Your task to perform on an android device: change the upload size in google photos Image 0: 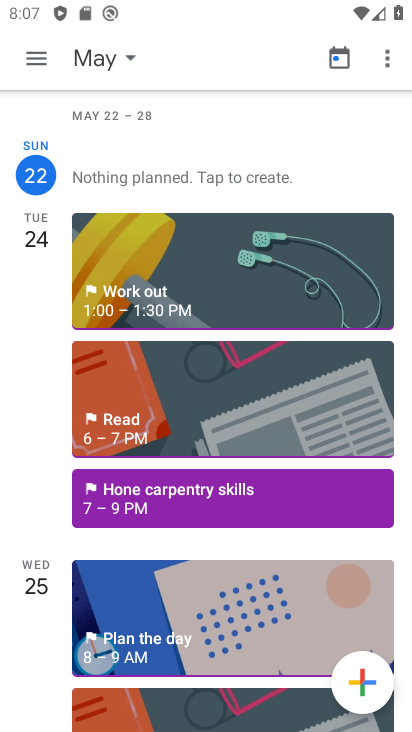
Step 0: press home button
Your task to perform on an android device: change the upload size in google photos Image 1: 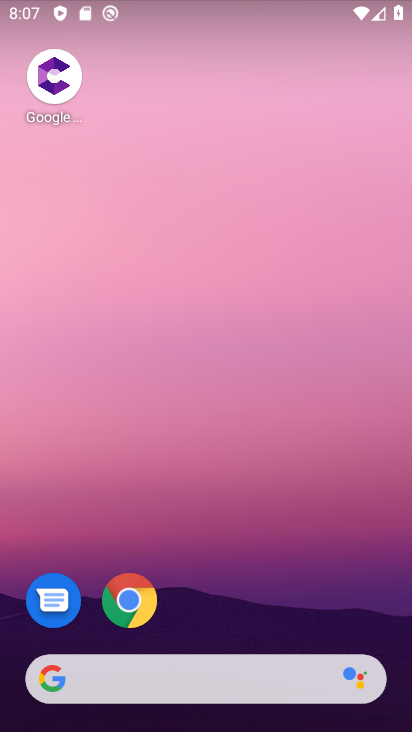
Step 1: drag from (259, 619) to (355, 198)
Your task to perform on an android device: change the upload size in google photos Image 2: 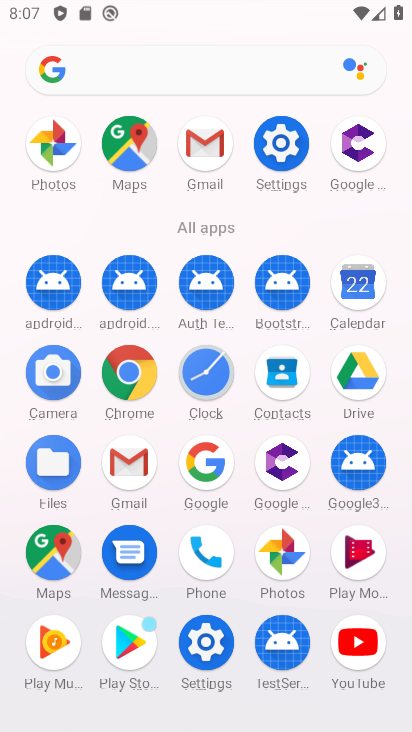
Step 2: click (300, 158)
Your task to perform on an android device: change the upload size in google photos Image 3: 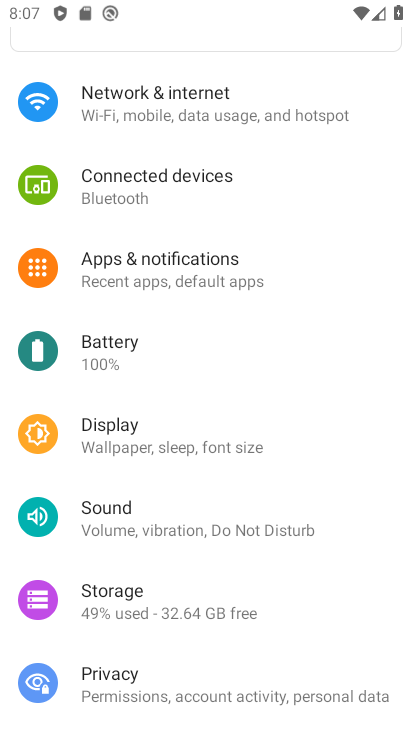
Step 3: press home button
Your task to perform on an android device: change the upload size in google photos Image 4: 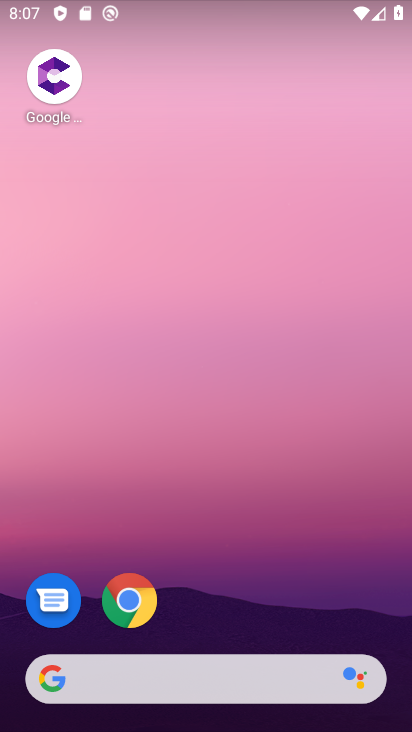
Step 4: drag from (209, 632) to (363, 48)
Your task to perform on an android device: change the upload size in google photos Image 5: 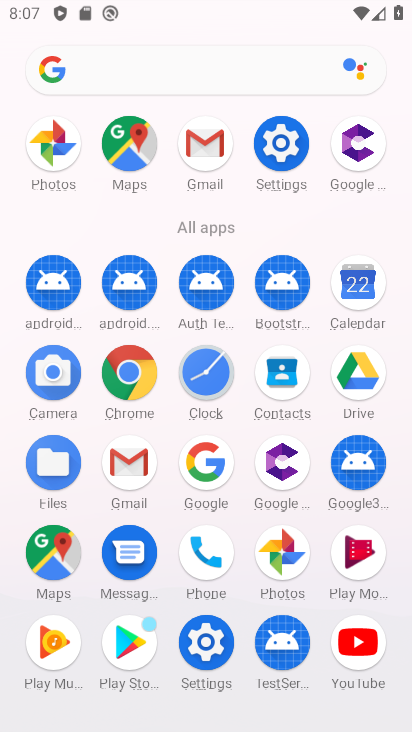
Step 5: click (284, 549)
Your task to perform on an android device: change the upload size in google photos Image 6: 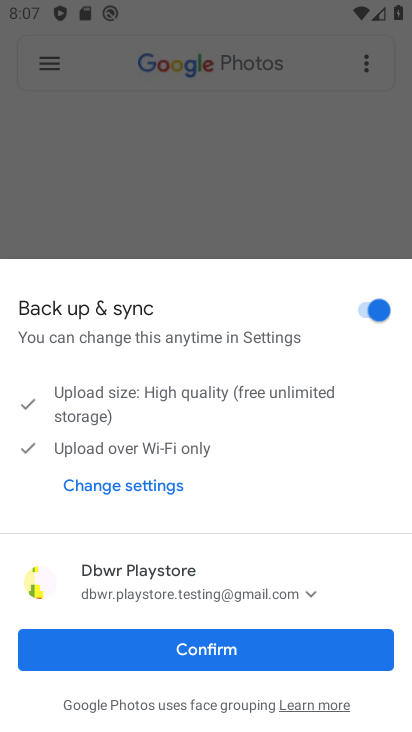
Step 6: click (323, 654)
Your task to perform on an android device: change the upload size in google photos Image 7: 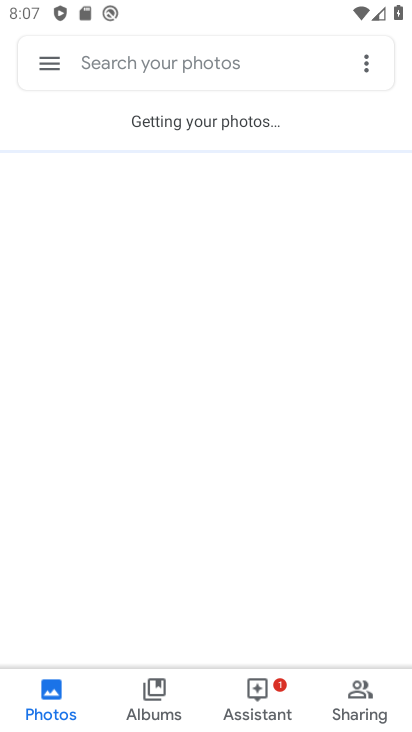
Step 7: click (54, 66)
Your task to perform on an android device: change the upload size in google photos Image 8: 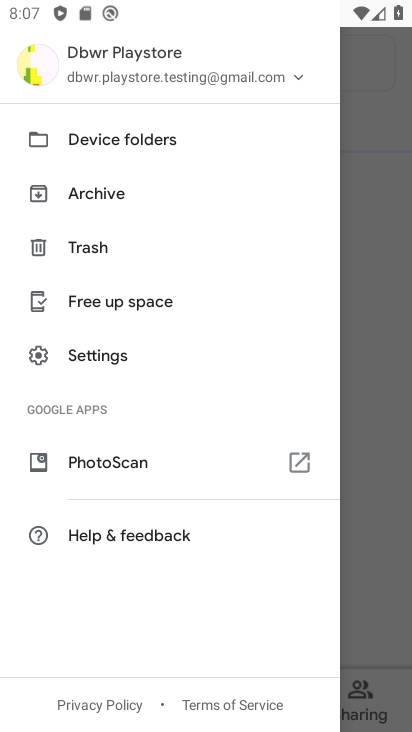
Step 8: click (124, 361)
Your task to perform on an android device: change the upload size in google photos Image 9: 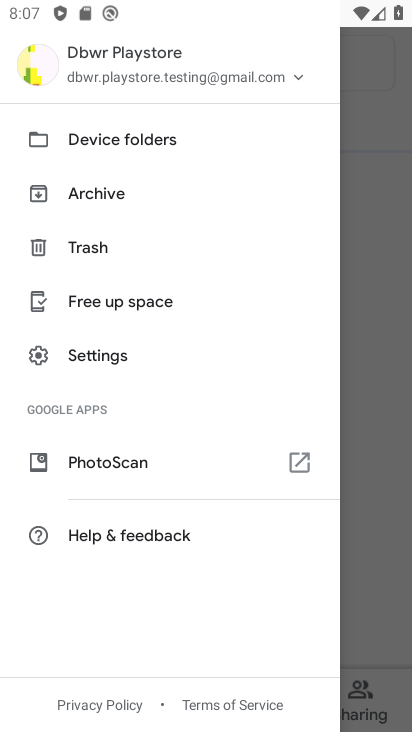
Step 9: click (104, 352)
Your task to perform on an android device: change the upload size in google photos Image 10: 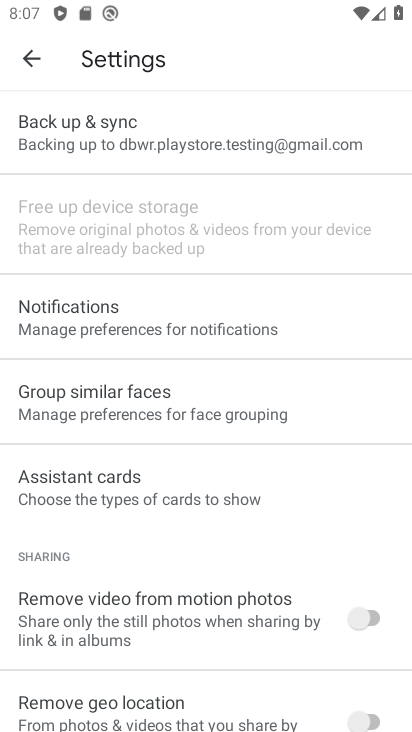
Step 10: click (138, 149)
Your task to perform on an android device: change the upload size in google photos Image 11: 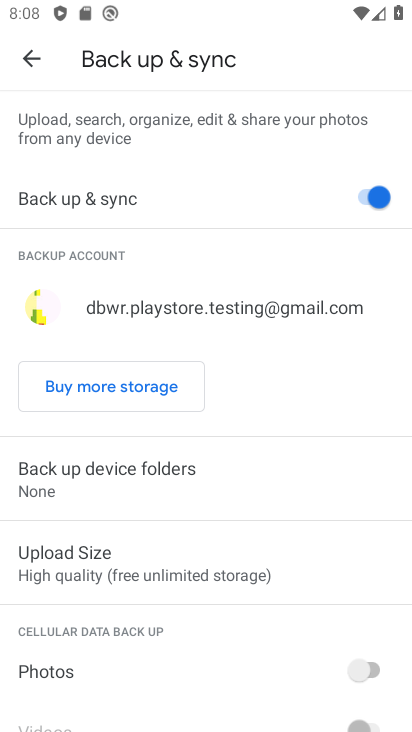
Step 11: click (93, 564)
Your task to perform on an android device: change the upload size in google photos Image 12: 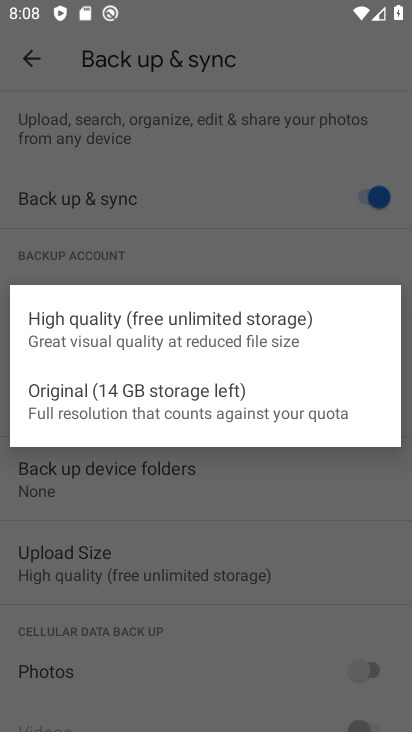
Step 12: click (88, 424)
Your task to perform on an android device: change the upload size in google photos Image 13: 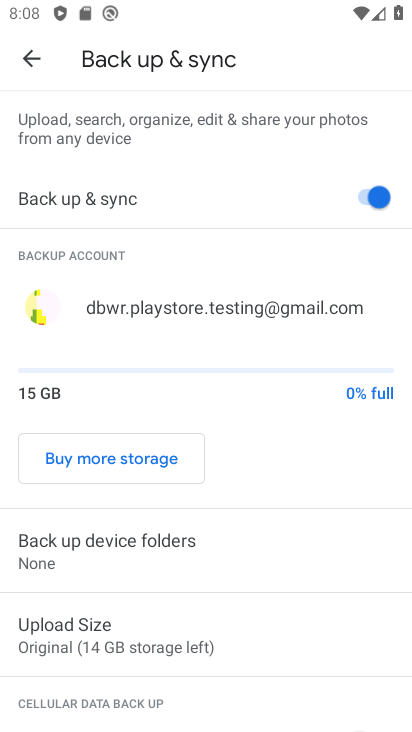
Step 13: task complete